Your task to perform on an android device: Find coffee shops on Maps Image 0: 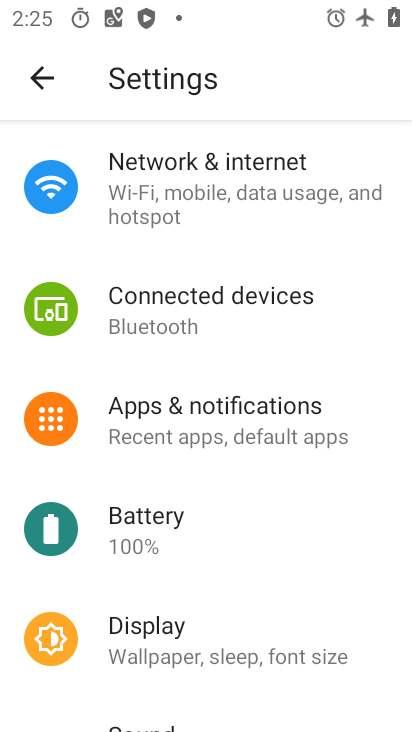
Step 0: press back button
Your task to perform on an android device: Find coffee shops on Maps Image 1: 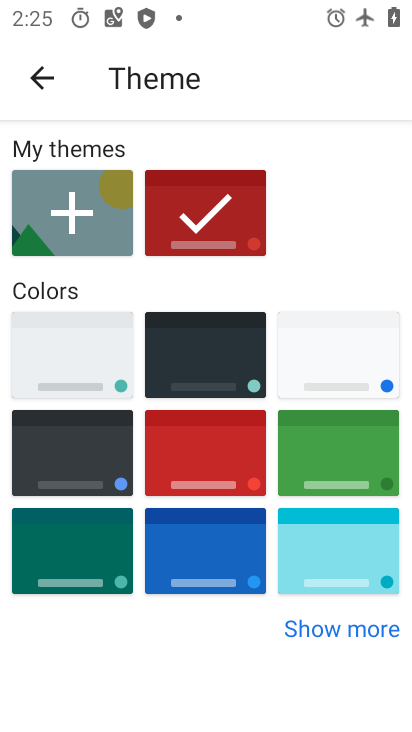
Step 1: press home button
Your task to perform on an android device: Find coffee shops on Maps Image 2: 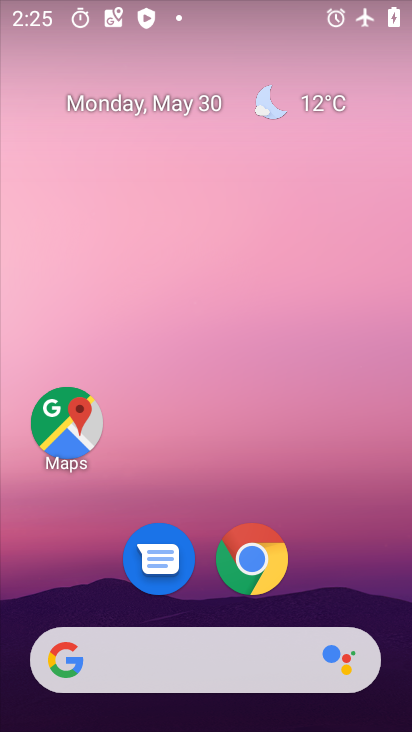
Step 2: click (55, 429)
Your task to perform on an android device: Find coffee shops on Maps Image 3: 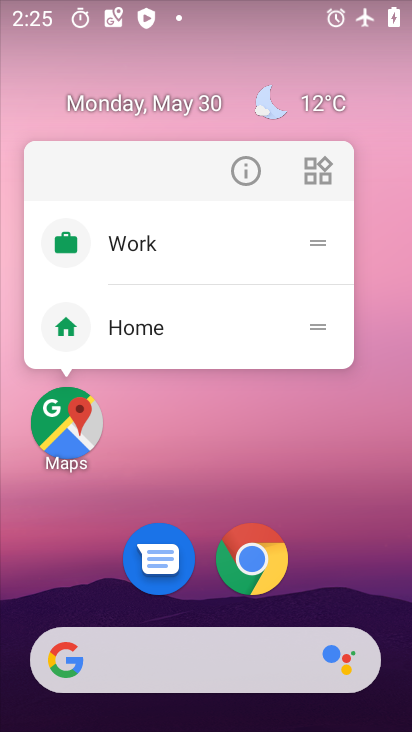
Step 3: click (63, 426)
Your task to perform on an android device: Find coffee shops on Maps Image 4: 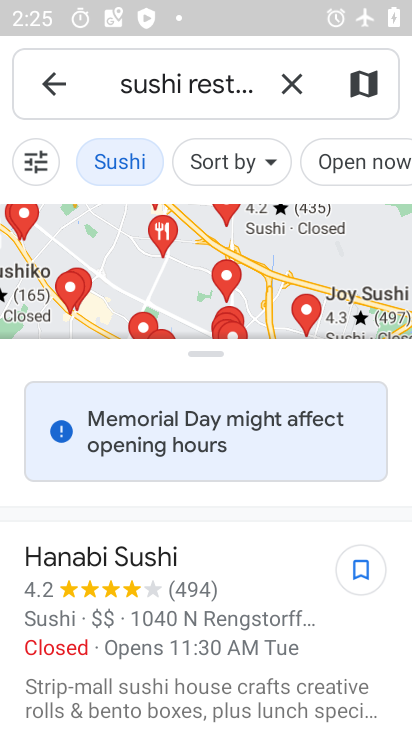
Step 4: click (293, 65)
Your task to perform on an android device: Find coffee shops on Maps Image 5: 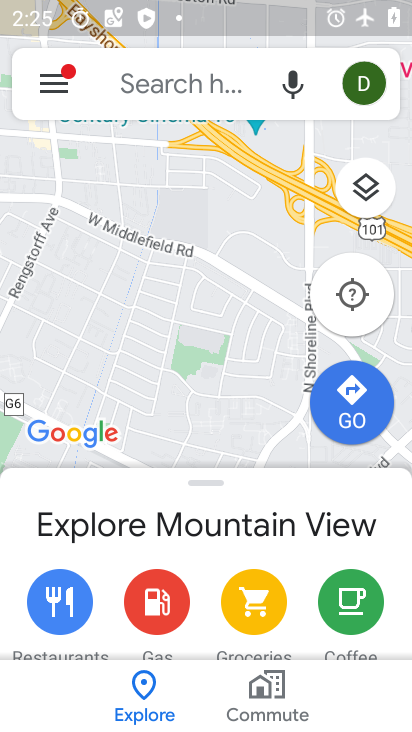
Step 5: click (145, 88)
Your task to perform on an android device: Find coffee shops on Maps Image 6: 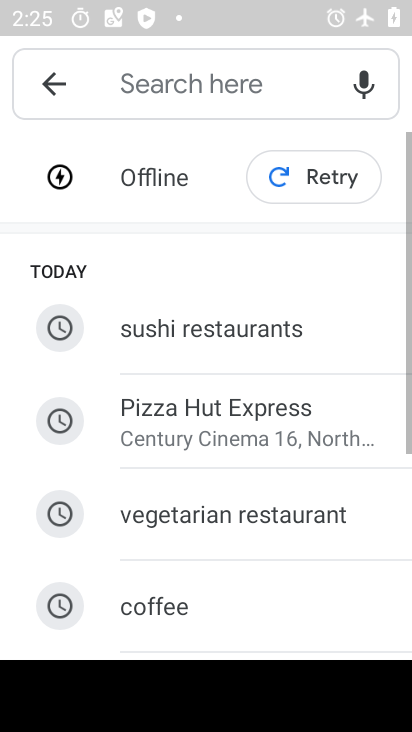
Step 6: drag from (185, 561) to (232, 205)
Your task to perform on an android device: Find coffee shops on Maps Image 7: 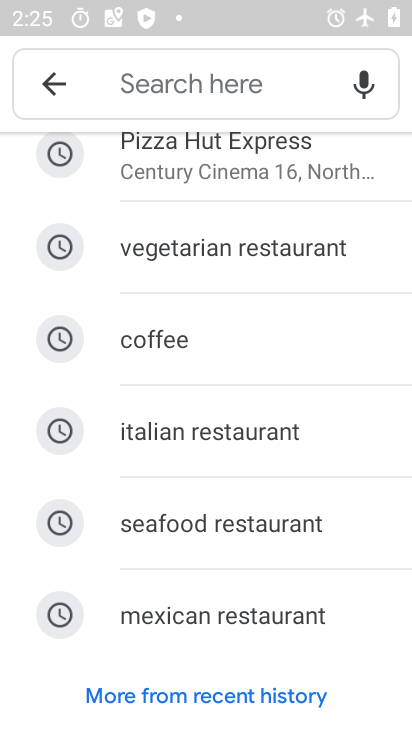
Step 7: click (150, 339)
Your task to perform on an android device: Find coffee shops on Maps Image 8: 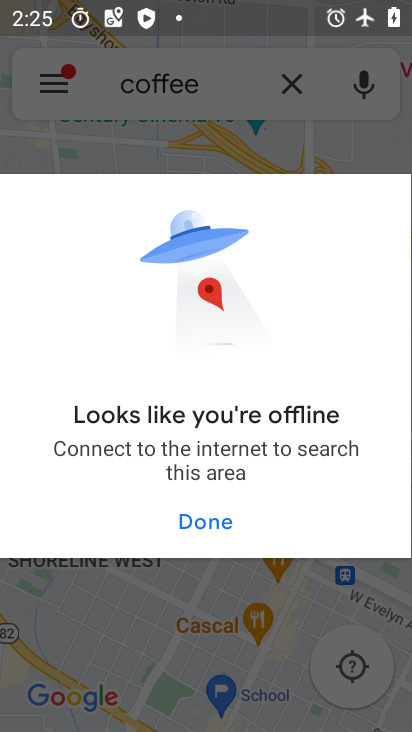
Step 8: click (210, 531)
Your task to perform on an android device: Find coffee shops on Maps Image 9: 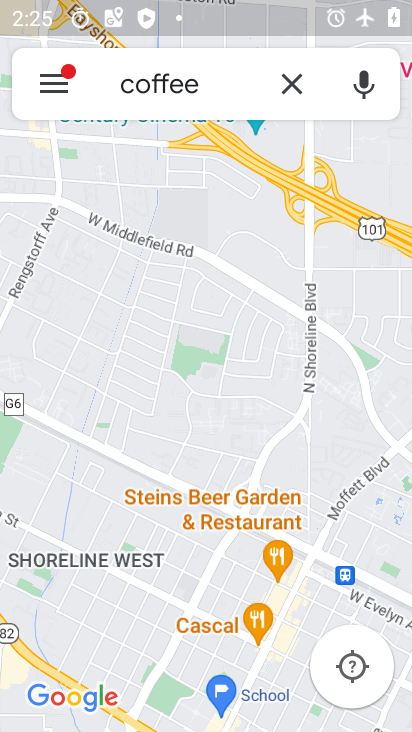
Step 9: drag from (319, 17) to (280, 555)
Your task to perform on an android device: Find coffee shops on Maps Image 10: 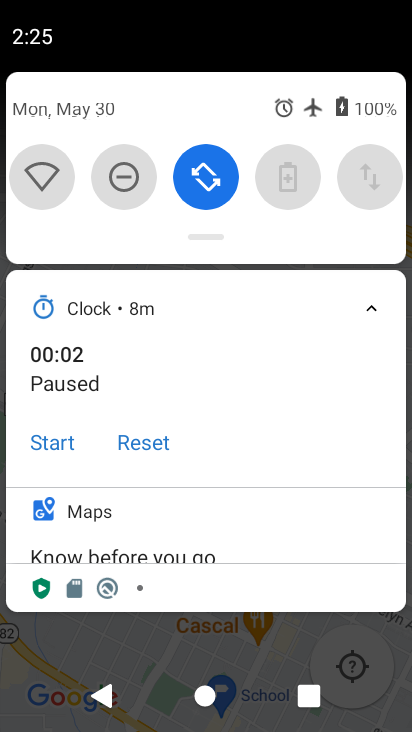
Step 10: drag from (218, 225) to (193, 554)
Your task to perform on an android device: Find coffee shops on Maps Image 11: 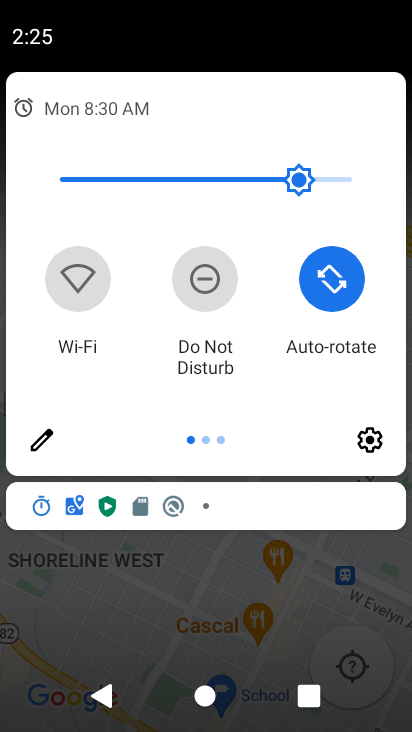
Step 11: drag from (349, 298) to (7, 345)
Your task to perform on an android device: Find coffee shops on Maps Image 12: 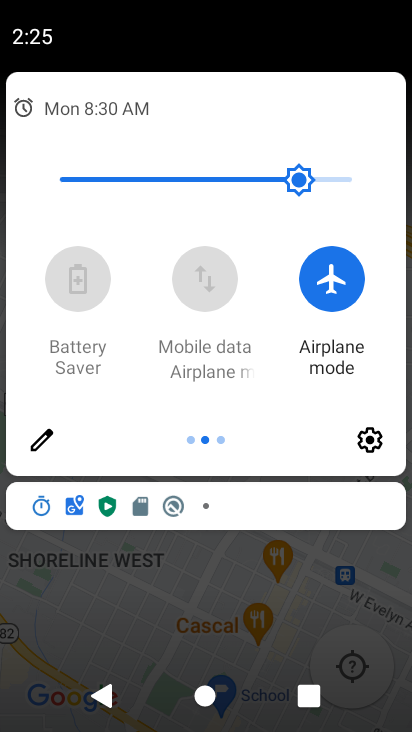
Step 12: click (320, 283)
Your task to perform on an android device: Find coffee shops on Maps Image 13: 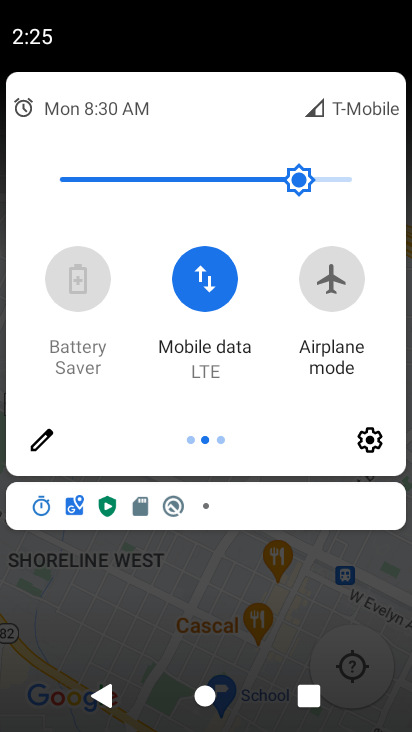
Step 13: click (121, 574)
Your task to perform on an android device: Find coffee shops on Maps Image 14: 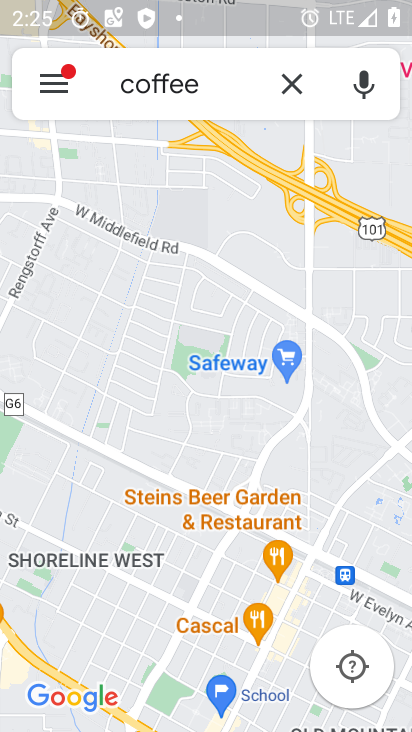
Step 14: click (208, 88)
Your task to perform on an android device: Find coffee shops on Maps Image 15: 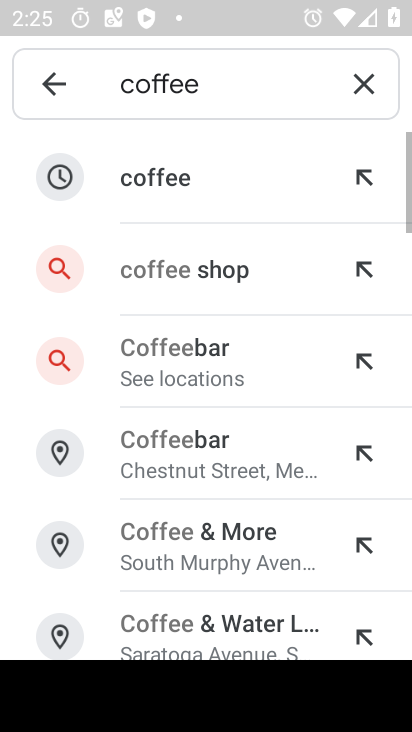
Step 15: click (171, 266)
Your task to perform on an android device: Find coffee shops on Maps Image 16: 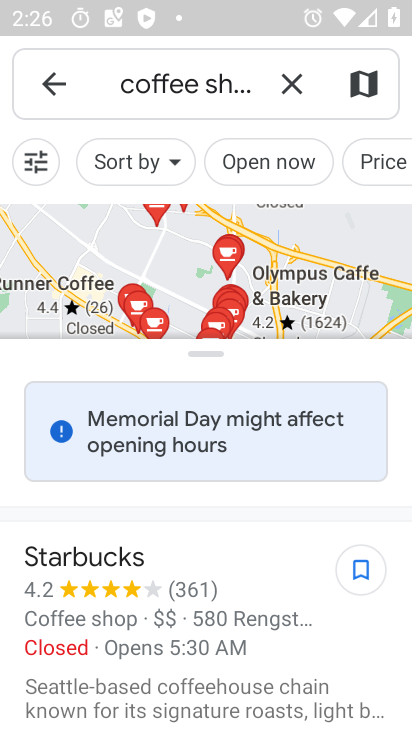
Step 16: task complete